Your task to perform on an android device: Go to ESPN.com Image 0: 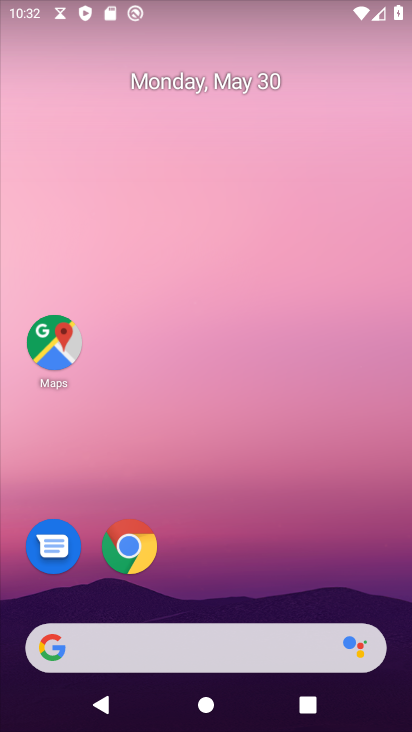
Step 0: press home button
Your task to perform on an android device: Go to ESPN.com Image 1: 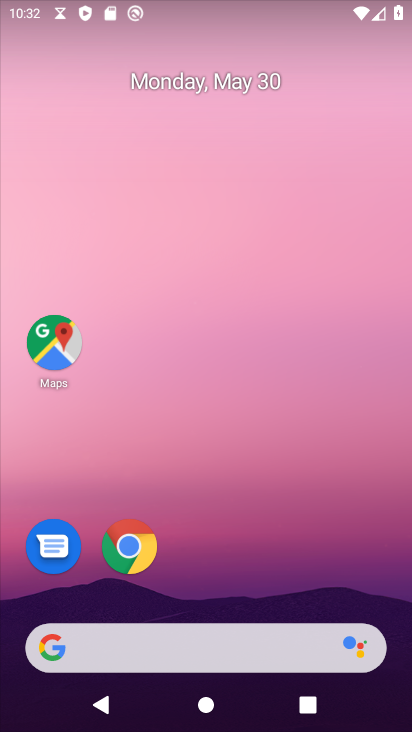
Step 1: click (126, 540)
Your task to perform on an android device: Go to ESPN.com Image 2: 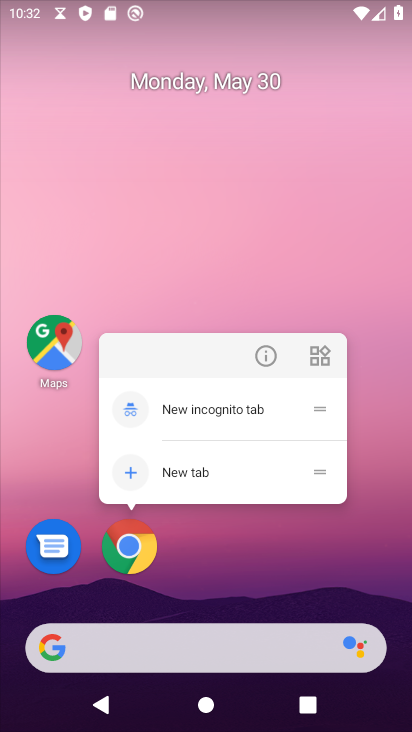
Step 2: click (126, 540)
Your task to perform on an android device: Go to ESPN.com Image 3: 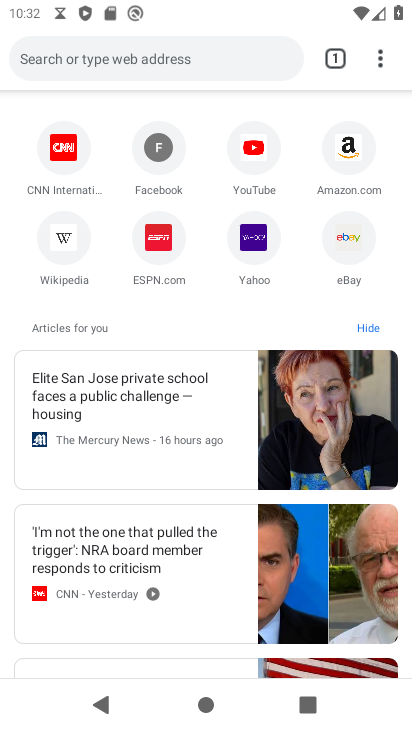
Step 3: click (89, 61)
Your task to perform on an android device: Go to ESPN.com Image 4: 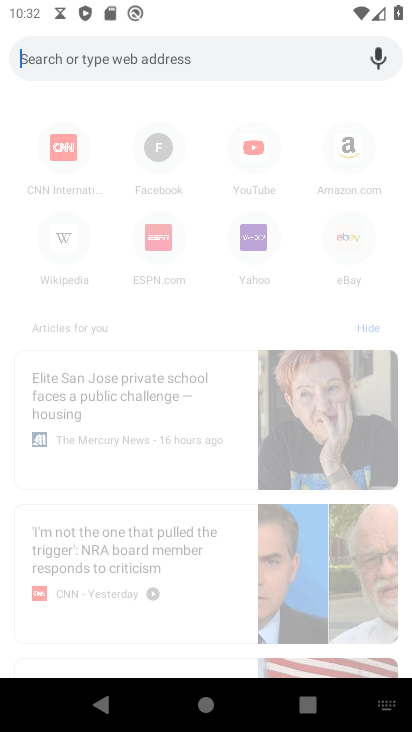
Step 4: type "espn"
Your task to perform on an android device: Go to ESPN.com Image 5: 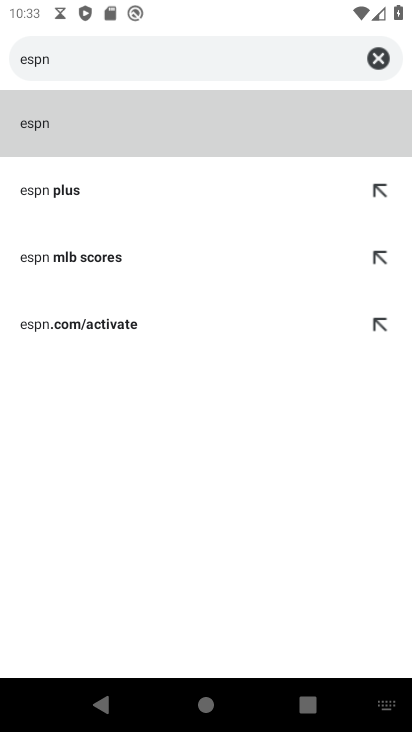
Step 5: click (71, 119)
Your task to perform on an android device: Go to ESPN.com Image 6: 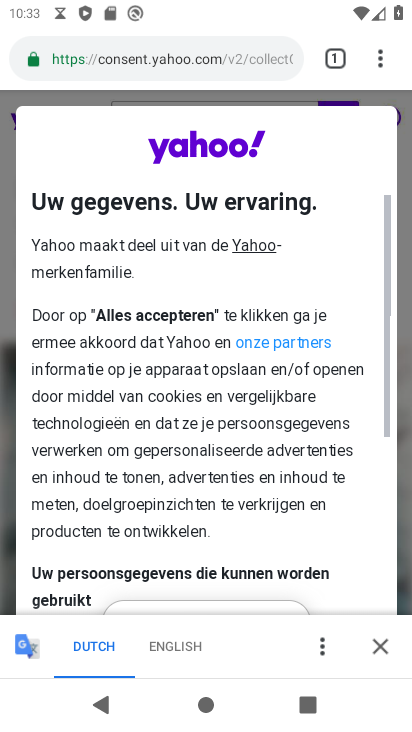
Step 6: drag from (218, 545) to (223, 82)
Your task to perform on an android device: Go to ESPN.com Image 7: 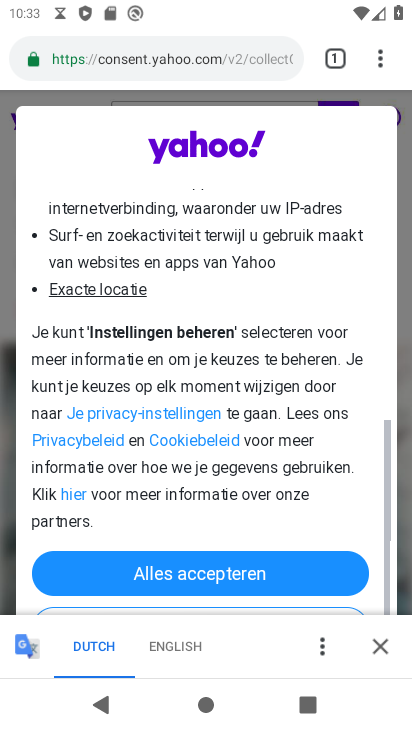
Step 7: click (211, 570)
Your task to perform on an android device: Go to ESPN.com Image 8: 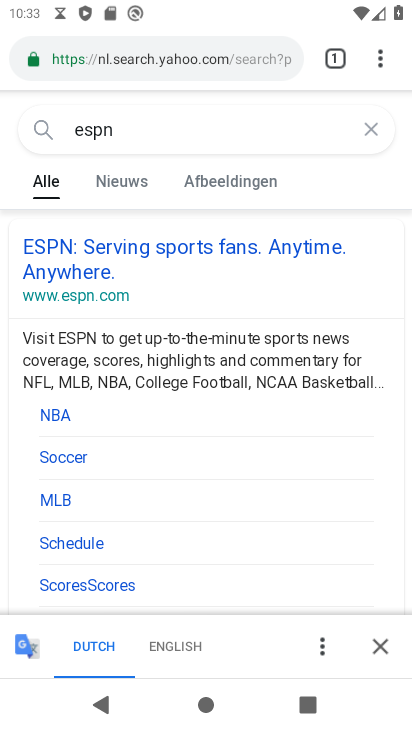
Step 8: click (170, 245)
Your task to perform on an android device: Go to ESPN.com Image 9: 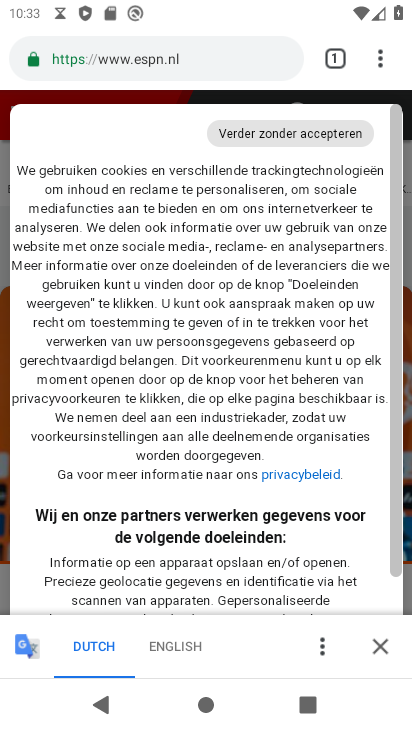
Step 9: drag from (243, 592) to (210, 150)
Your task to perform on an android device: Go to ESPN.com Image 10: 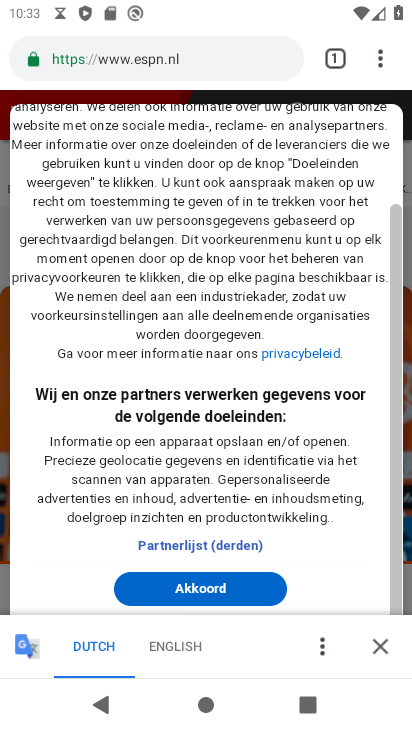
Step 10: click (204, 586)
Your task to perform on an android device: Go to ESPN.com Image 11: 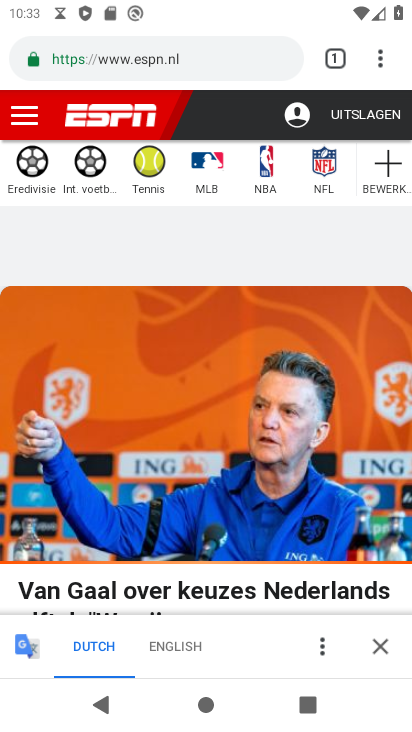
Step 11: click (381, 645)
Your task to perform on an android device: Go to ESPN.com Image 12: 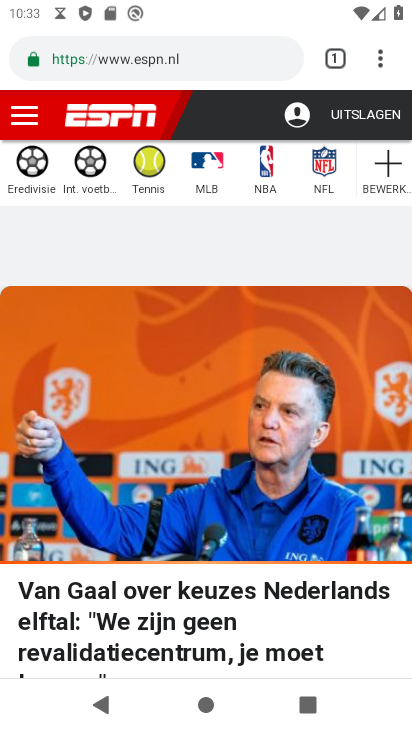
Step 12: task complete